Your task to perform on an android device: Open Youtube and go to the subscriptions tab Image 0: 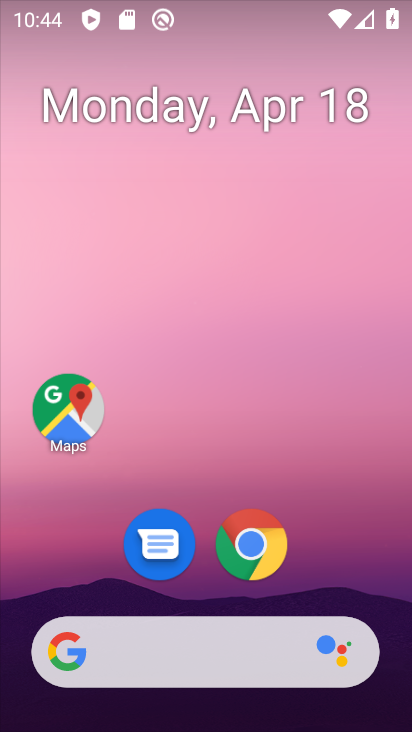
Step 0: drag from (228, 490) to (298, 131)
Your task to perform on an android device: Open Youtube and go to the subscriptions tab Image 1: 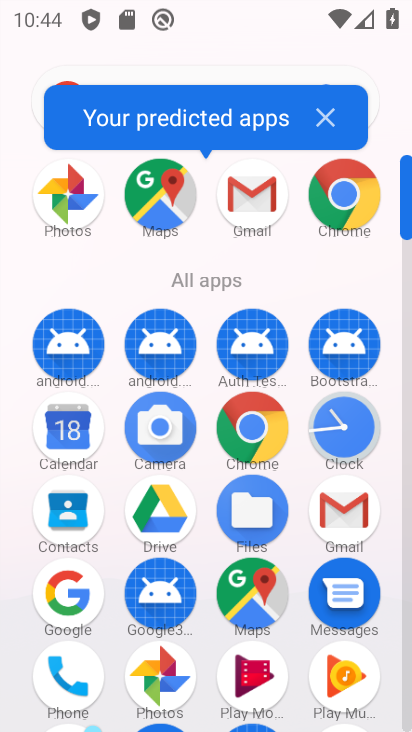
Step 1: drag from (214, 570) to (199, 221)
Your task to perform on an android device: Open Youtube and go to the subscriptions tab Image 2: 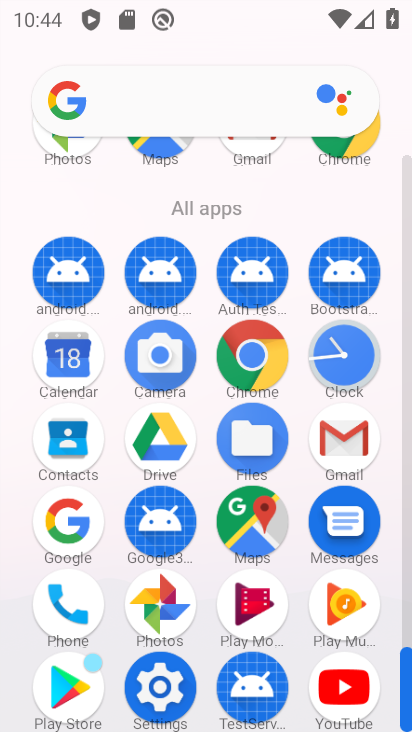
Step 2: drag from (202, 553) to (181, 234)
Your task to perform on an android device: Open Youtube and go to the subscriptions tab Image 3: 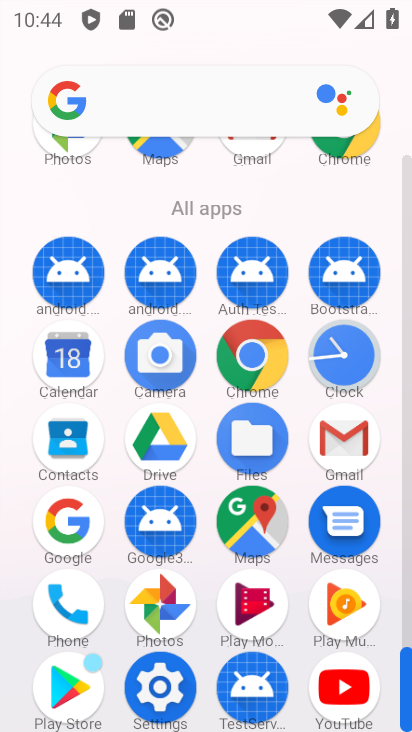
Step 3: click (345, 691)
Your task to perform on an android device: Open Youtube and go to the subscriptions tab Image 4: 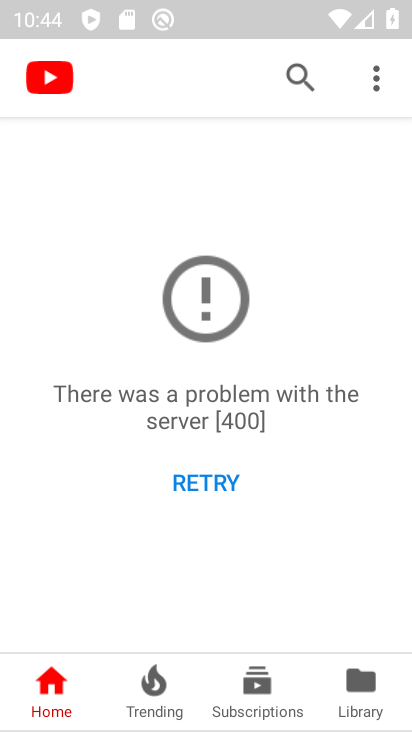
Step 4: click (273, 683)
Your task to perform on an android device: Open Youtube and go to the subscriptions tab Image 5: 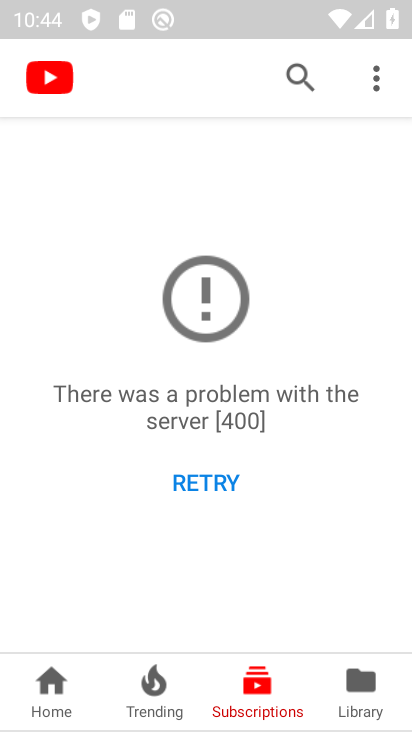
Step 5: click (358, 676)
Your task to perform on an android device: Open Youtube and go to the subscriptions tab Image 6: 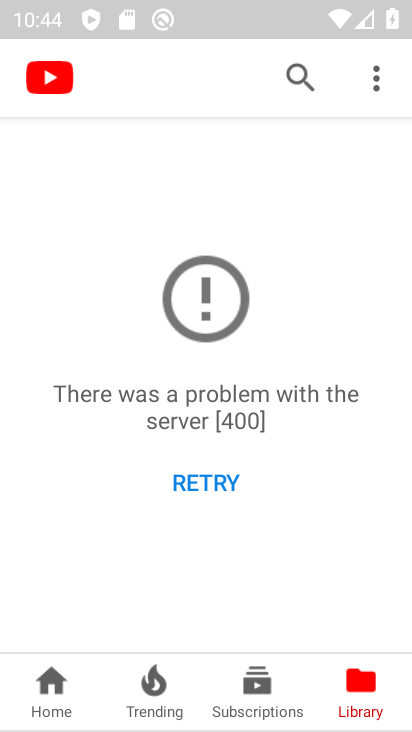
Step 6: click (164, 692)
Your task to perform on an android device: Open Youtube and go to the subscriptions tab Image 7: 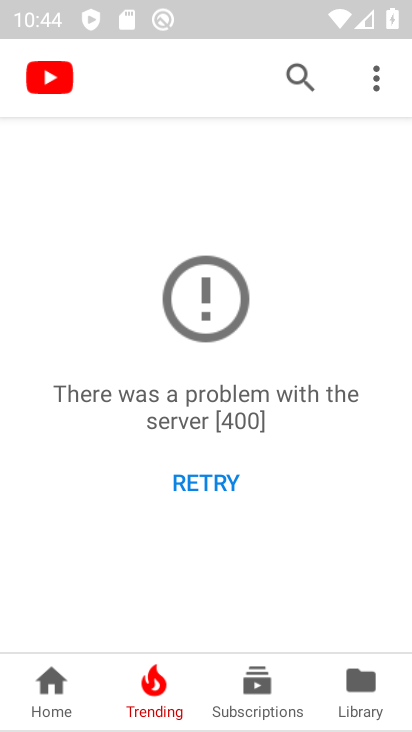
Step 7: click (49, 686)
Your task to perform on an android device: Open Youtube and go to the subscriptions tab Image 8: 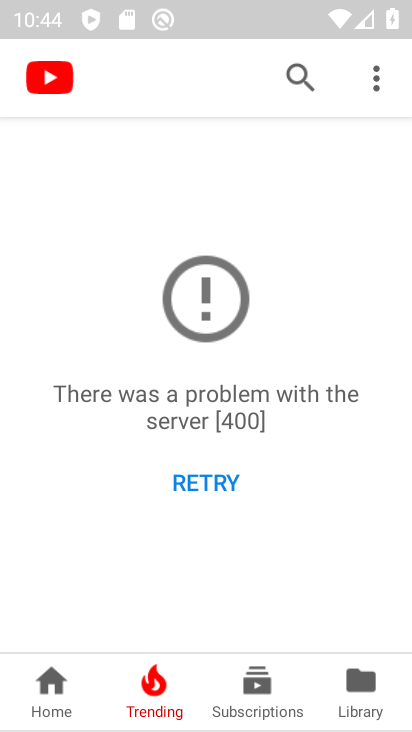
Step 8: click (49, 686)
Your task to perform on an android device: Open Youtube and go to the subscriptions tab Image 9: 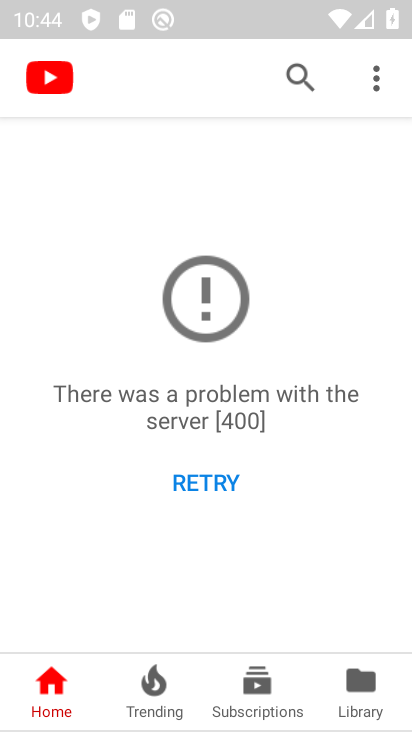
Step 9: click (377, 683)
Your task to perform on an android device: Open Youtube and go to the subscriptions tab Image 10: 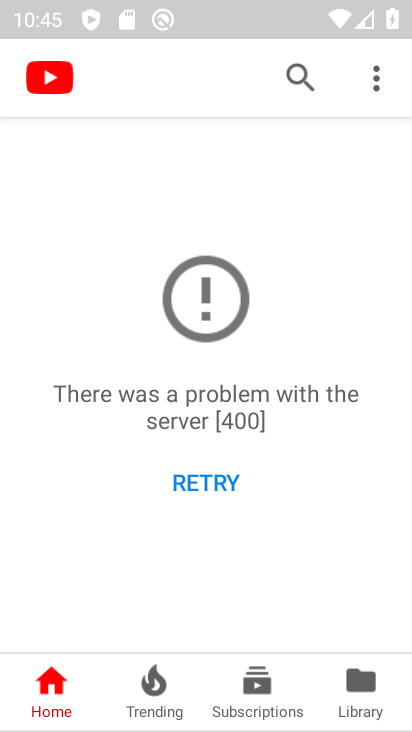
Step 10: task complete